Your task to perform on an android device: Go to accessibility settings Image 0: 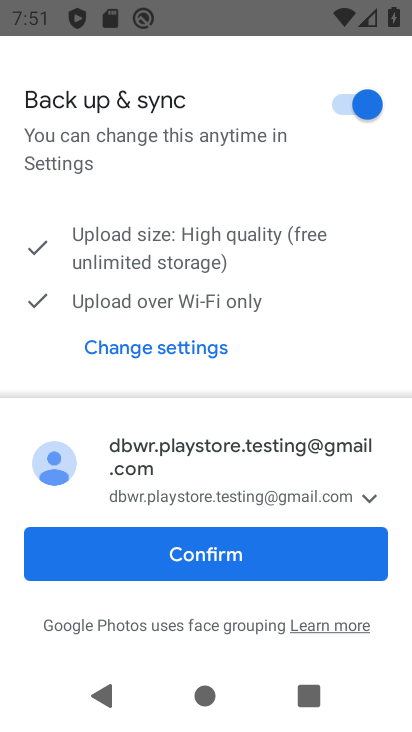
Step 0: press home button
Your task to perform on an android device: Go to accessibility settings Image 1: 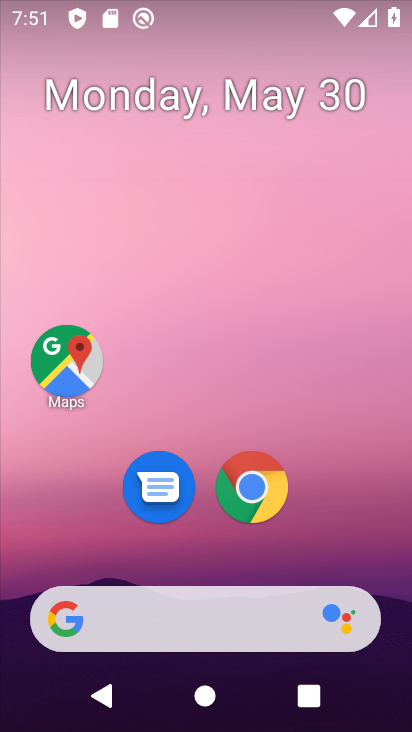
Step 1: drag from (334, 514) to (319, 101)
Your task to perform on an android device: Go to accessibility settings Image 2: 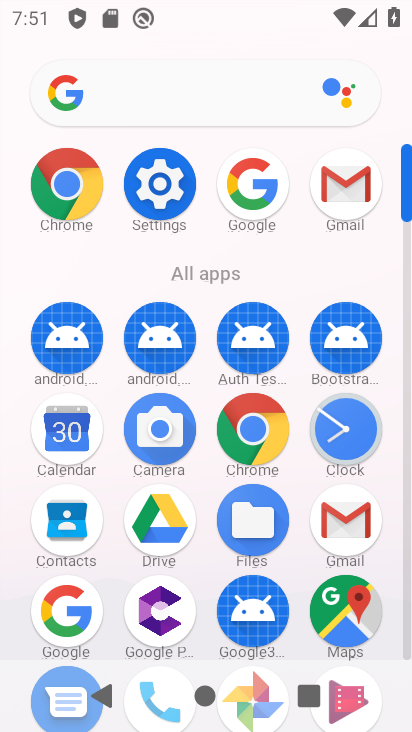
Step 2: click (163, 184)
Your task to perform on an android device: Go to accessibility settings Image 3: 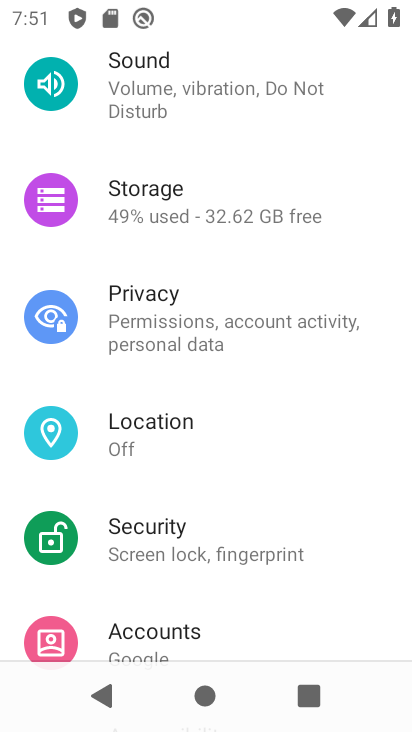
Step 3: drag from (190, 564) to (254, 134)
Your task to perform on an android device: Go to accessibility settings Image 4: 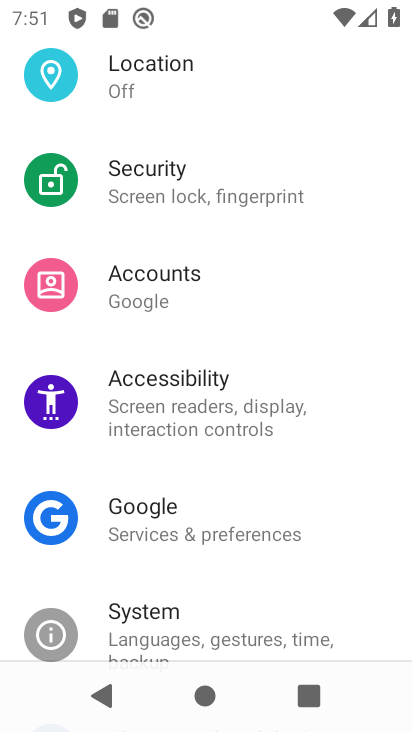
Step 4: click (179, 406)
Your task to perform on an android device: Go to accessibility settings Image 5: 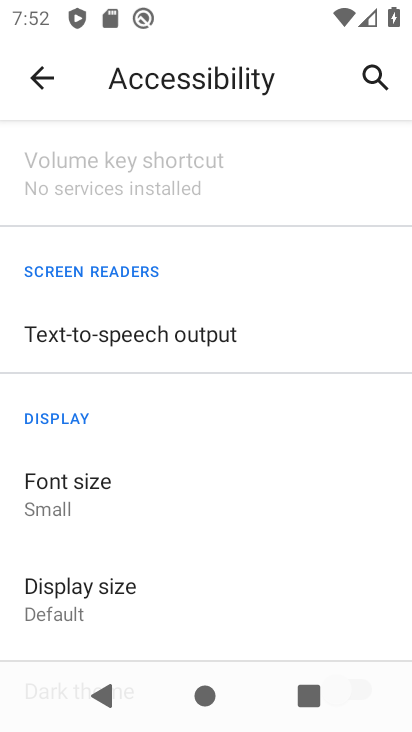
Step 5: task complete